Your task to perform on an android device: Open Chrome and go to the settings page Image 0: 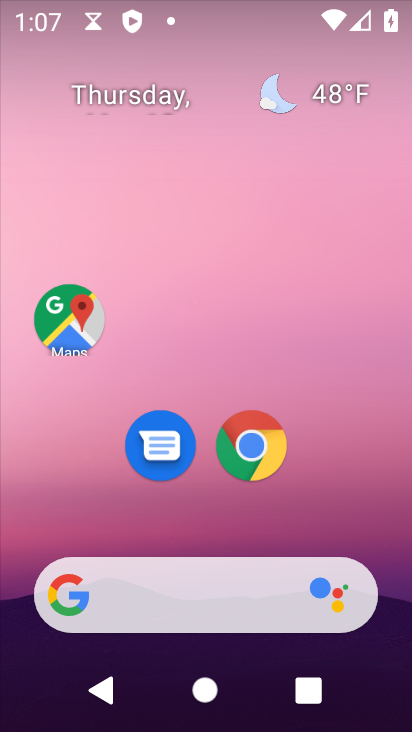
Step 0: click (254, 442)
Your task to perform on an android device: Open Chrome and go to the settings page Image 1: 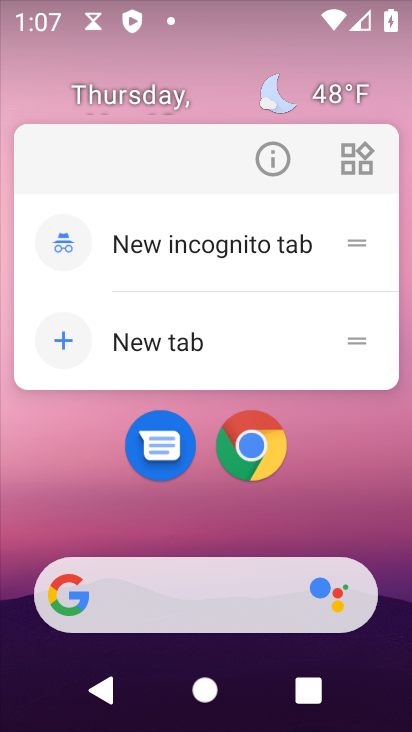
Step 1: click (251, 452)
Your task to perform on an android device: Open Chrome and go to the settings page Image 2: 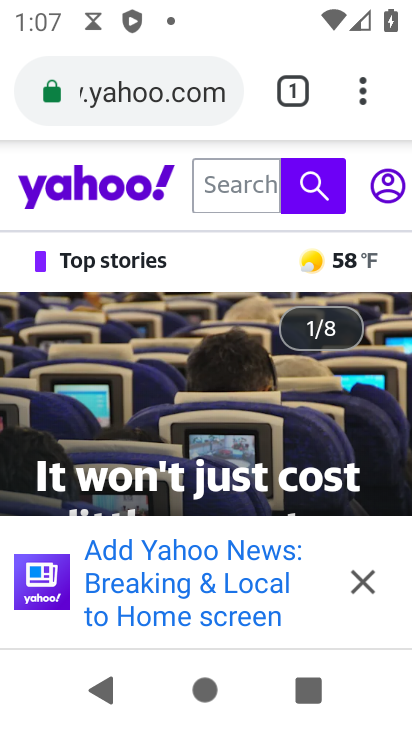
Step 2: click (361, 86)
Your task to perform on an android device: Open Chrome and go to the settings page Image 3: 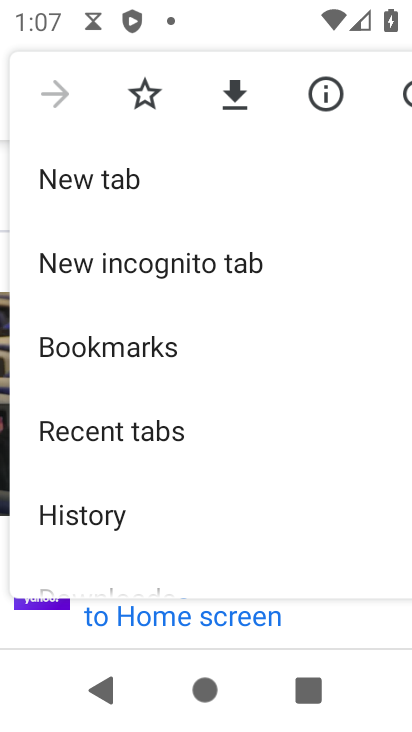
Step 3: drag from (222, 494) to (220, 140)
Your task to perform on an android device: Open Chrome and go to the settings page Image 4: 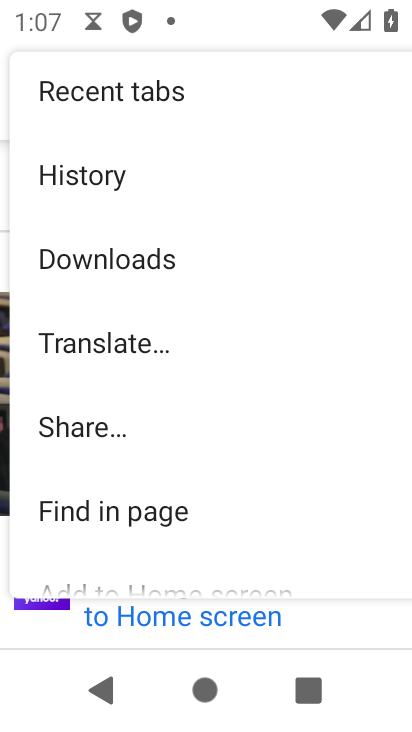
Step 4: drag from (151, 513) to (142, 121)
Your task to perform on an android device: Open Chrome and go to the settings page Image 5: 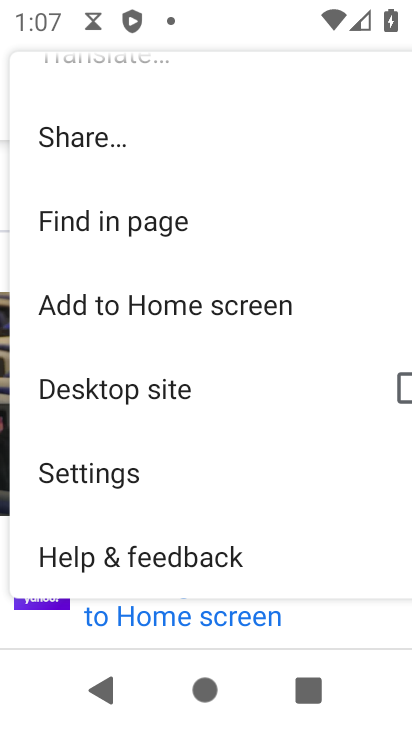
Step 5: click (143, 463)
Your task to perform on an android device: Open Chrome and go to the settings page Image 6: 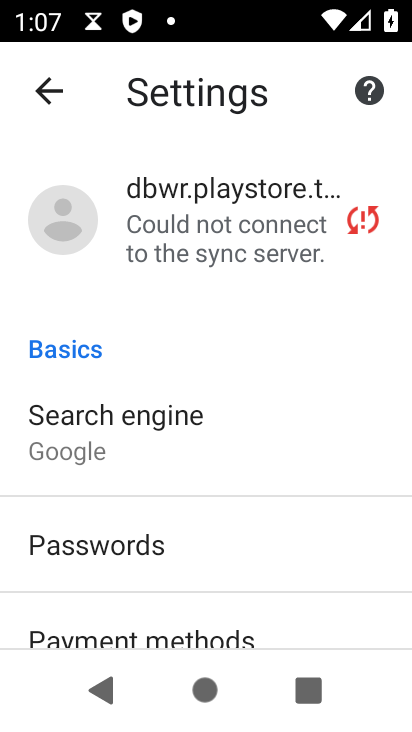
Step 6: task complete